Your task to perform on an android device: find photos in the google photos app Image 0: 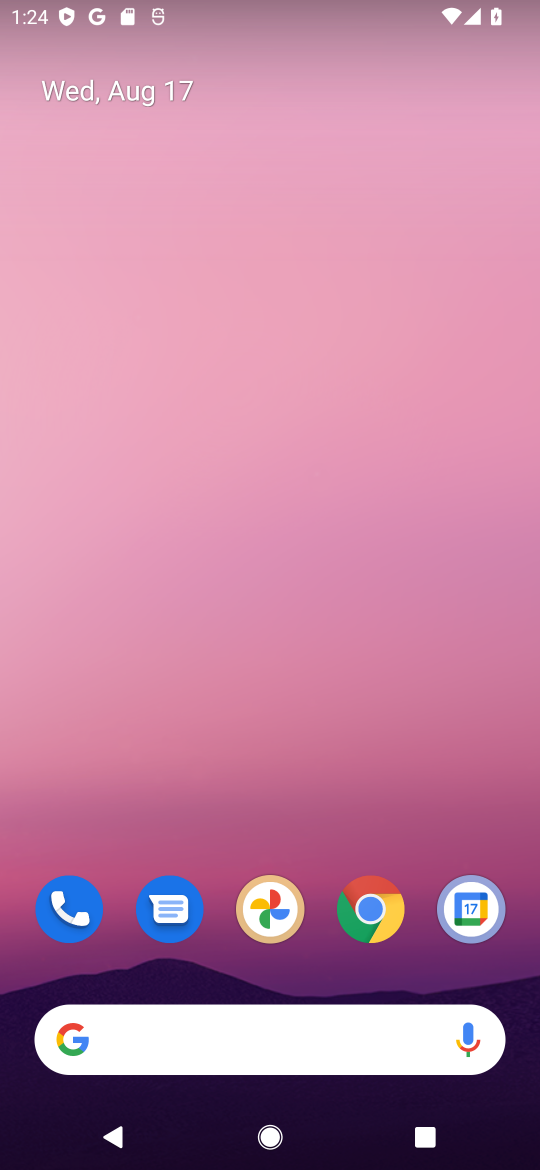
Step 0: click (270, 906)
Your task to perform on an android device: find photos in the google photos app Image 1: 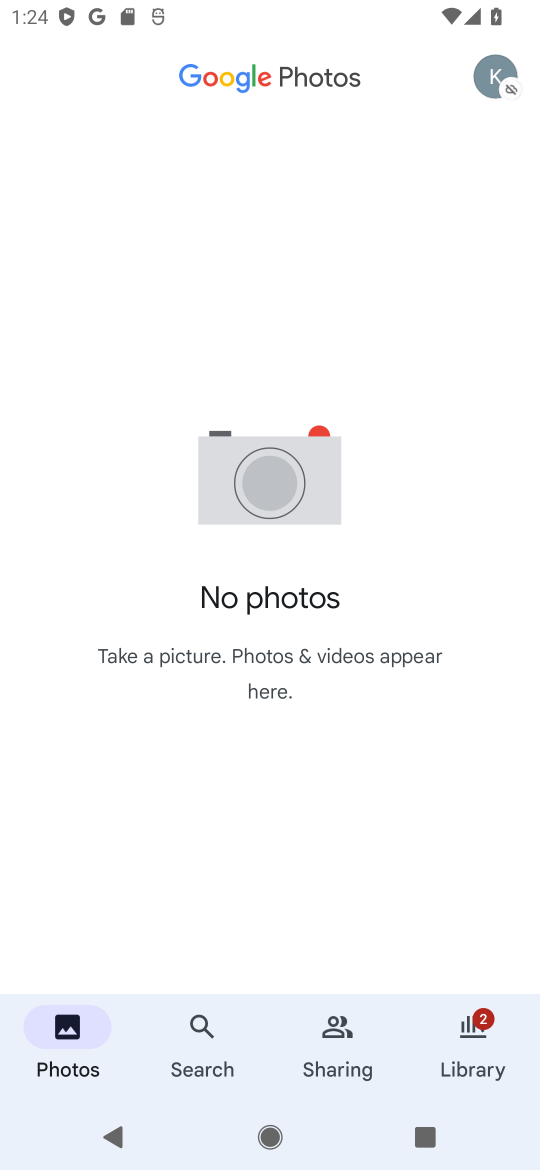
Step 1: click (206, 1027)
Your task to perform on an android device: find photos in the google photos app Image 2: 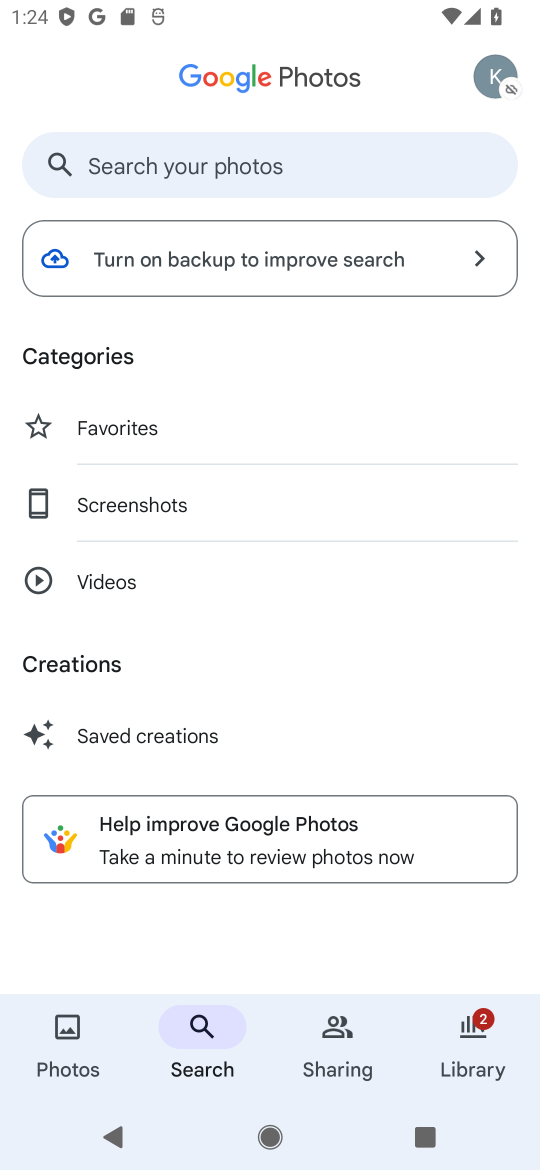
Step 2: task complete